Your task to perform on an android device: check the backup settings in the google photos Image 0: 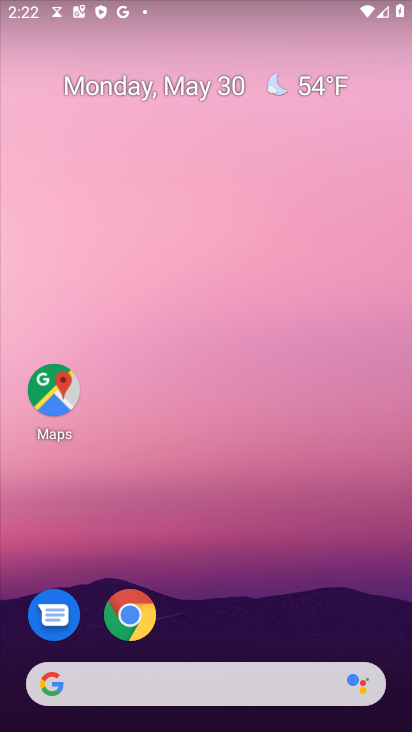
Step 0: drag from (276, 525) to (260, 52)
Your task to perform on an android device: check the backup settings in the google photos Image 1: 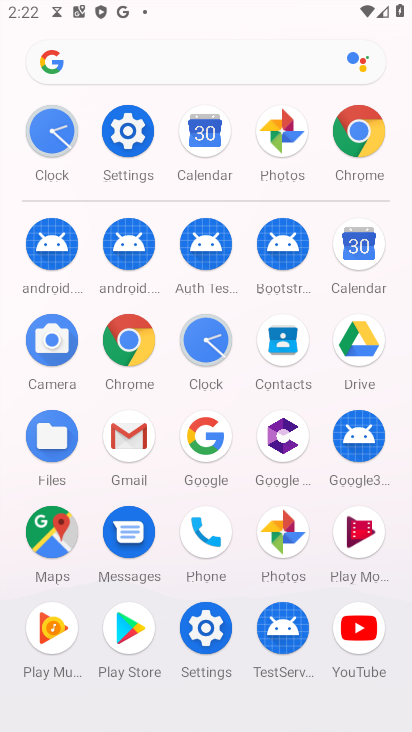
Step 1: click (288, 150)
Your task to perform on an android device: check the backup settings in the google photos Image 2: 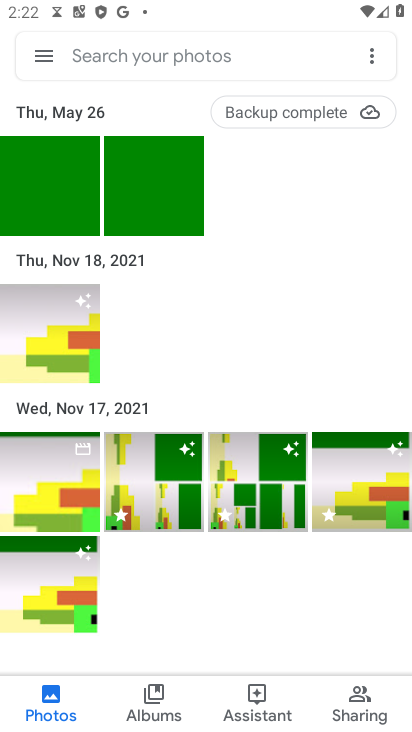
Step 2: click (9, 55)
Your task to perform on an android device: check the backup settings in the google photos Image 3: 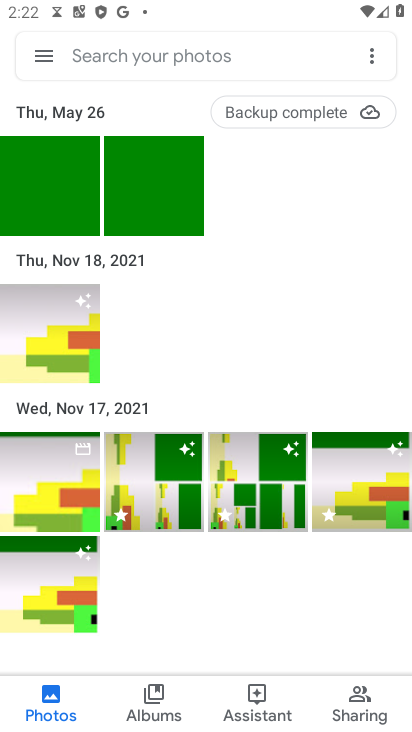
Step 3: click (54, 67)
Your task to perform on an android device: check the backup settings in the google photos Image 4: 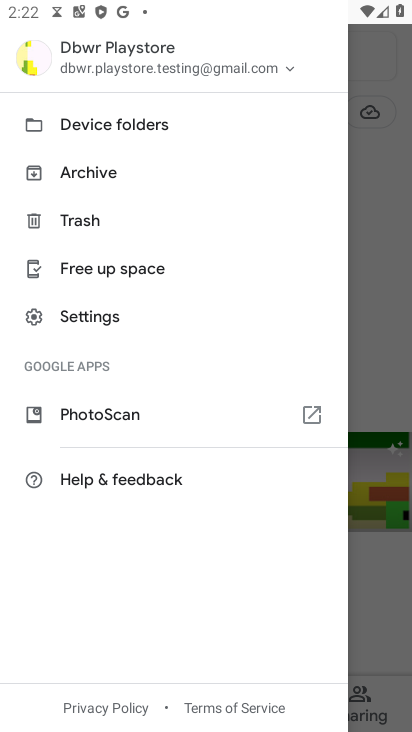
Step 4: click (79, 330)
Your task to perform on an android device: check the backup settings in the google photos Image 5: 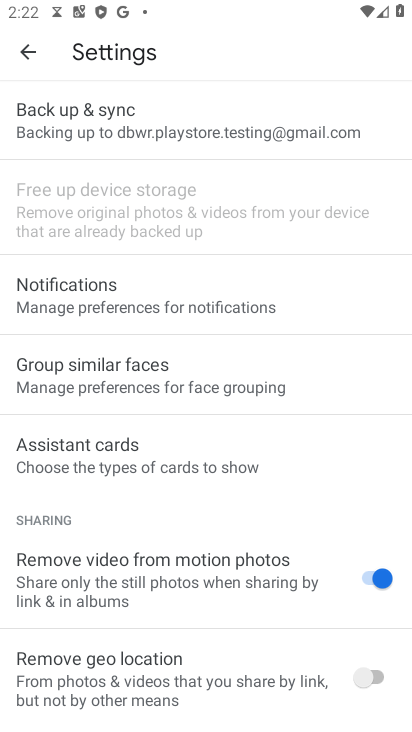
Step 5: click (83, 106)
Your task to perform on an android device: check the backup settings in the google photos Image 6: 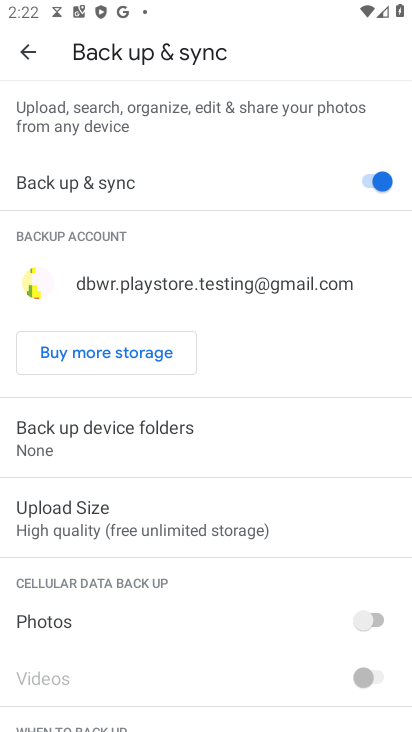
Step 6: task complete